Your task to perform on an android device: allow notifications from all sites in the chrome app Image 0: 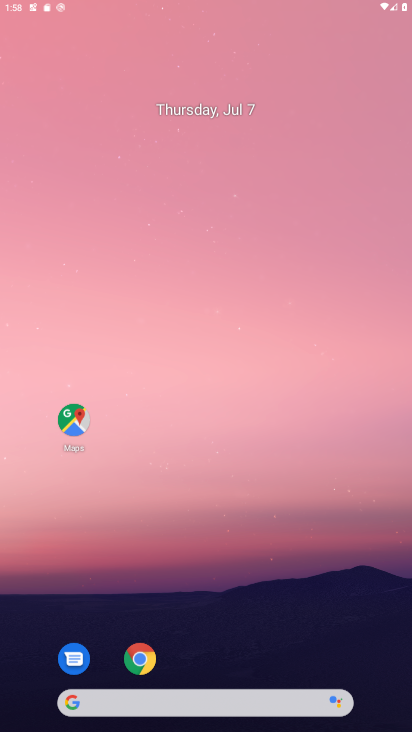
Step 0: click (407, 409)
Your task to perform on an android device: allow notifications from all sites in the chrome app Image 1: 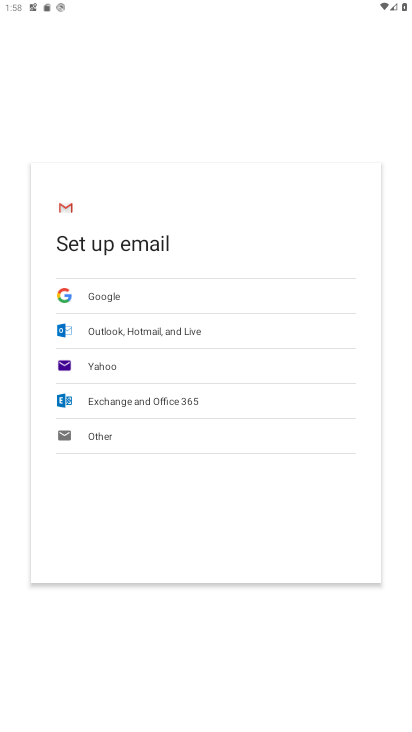
Step 1: press home button
Your task to perform on an android device: allow notifications from all sites in the chrome app Image 2: 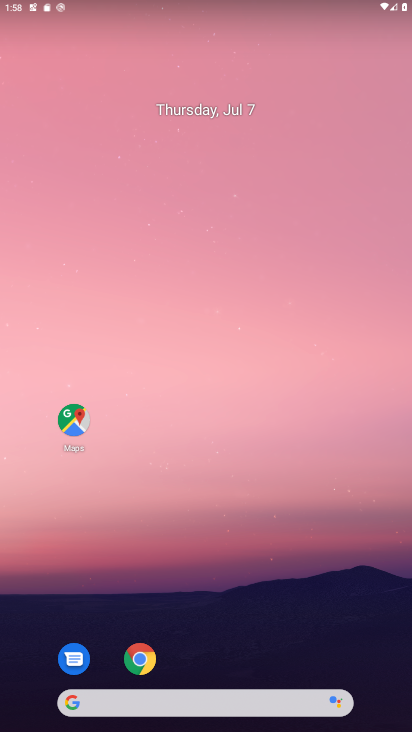
Step 2: drag from (202, 621) to (347, 16)
Your task to perform on an android device: allow notifications from all sites in the chrome app Image 3: 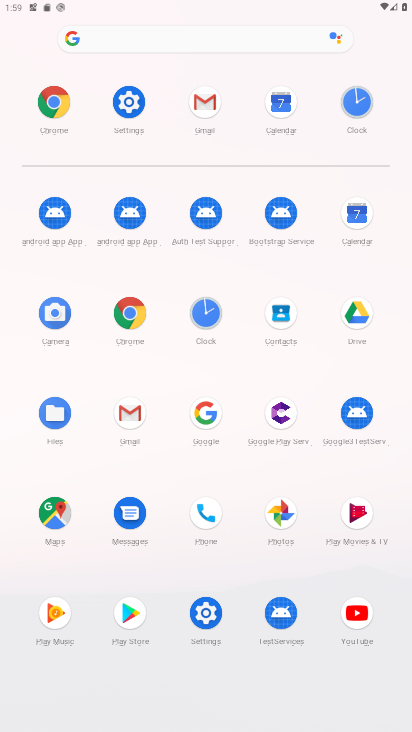
Step 3: click (127, 315)
Your task to perform on an android device: allow notifications from all sites in the chrome app Image 4: 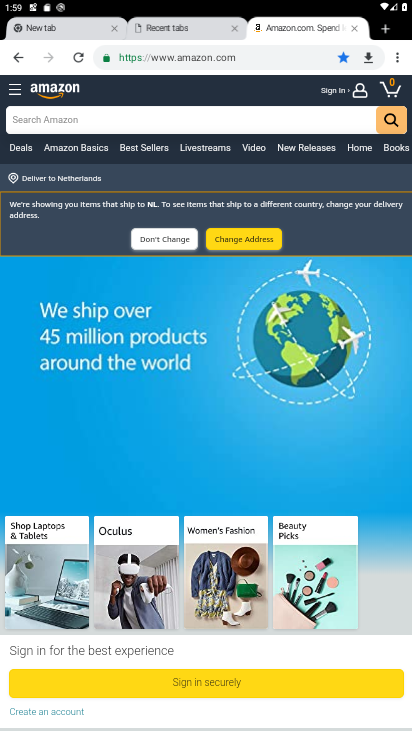
Step 4: click (389, 60)
Your task to perform on an android device: allow notifications from all sites in the chrome app Image 5: 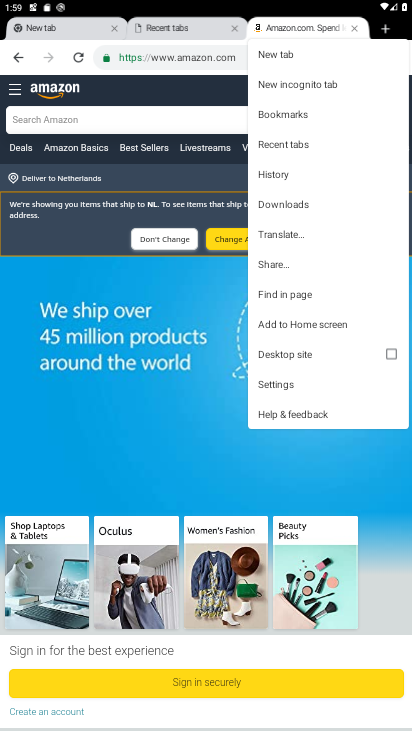
Step 5: click (292, 381)
Your task to perform on an android device: allow notifications from all sites in the chrome app Image 6: 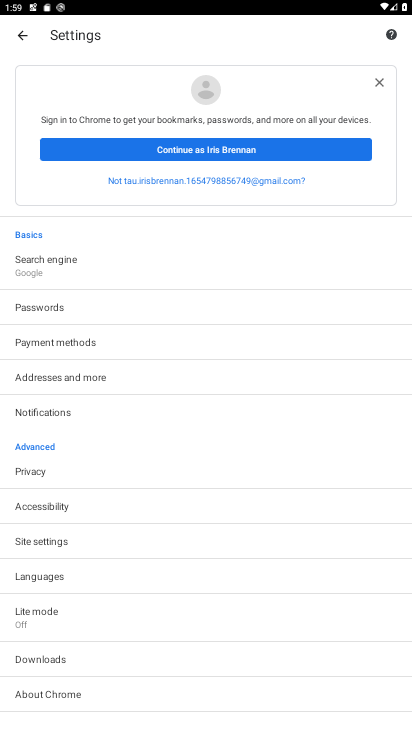
Step 6: drag from (137, 505) to (248, 25)
Your task to perform on an android device: allow notifications from all sites in the chrome app Image 7: 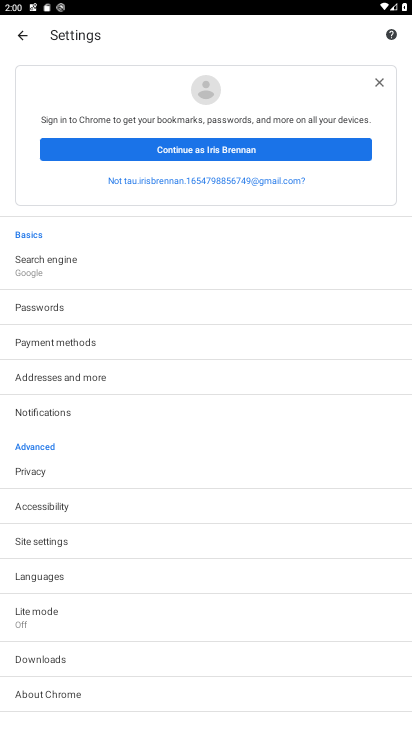
Step 7: drag from (86, 525) to (259, 243)
Your task to perform on an android device: allow notifications from all sites in the chrome app Image 8: 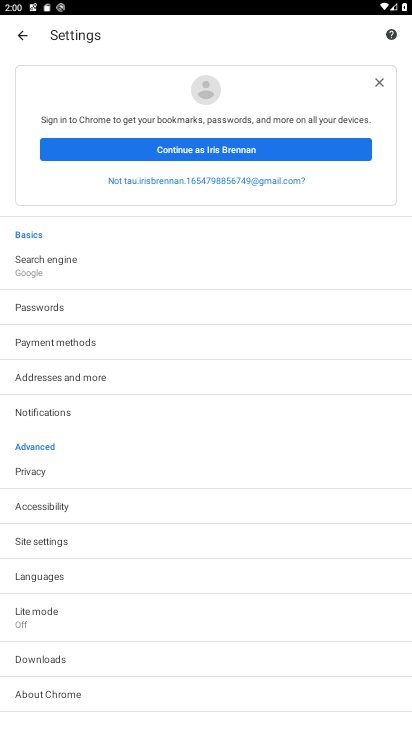
Step 8: click (102, 413)
Your task to perform on an android device: allow notifications from all sites in the chrome app Image 9: 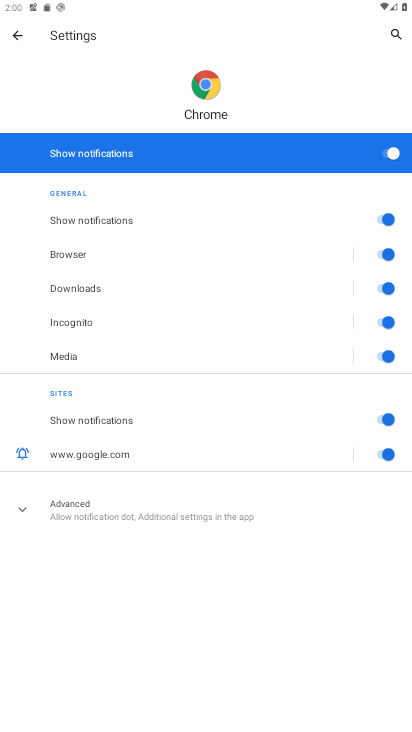
Step 9: task complete